Your task to perform on an android device: choose inbox layout in the gmail app Image 0: 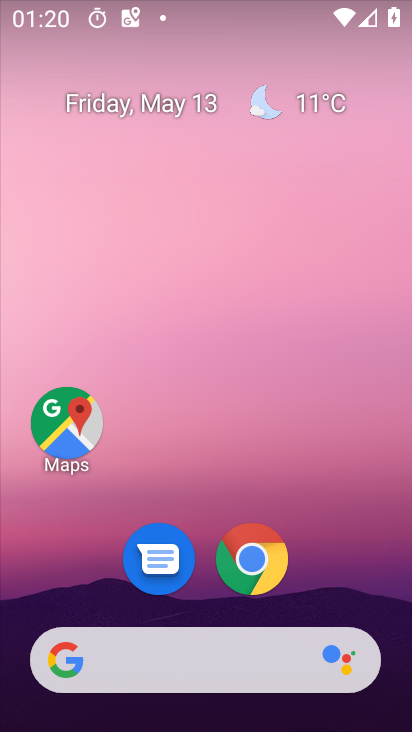
Step 0: drag from (337, 558) to (357, 152)
Your task to perform on an android device: choose inbox layout in the gmail app Image 1: 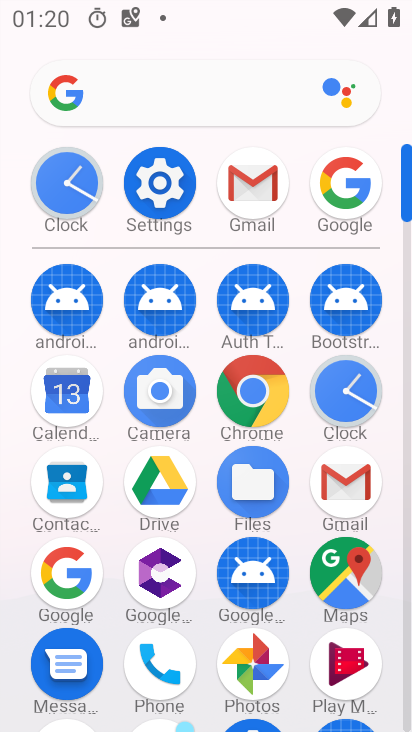
Step 1: click (244, 180)
Your task to perform on an android device: choose inbox layout in the gmail app Image 2: 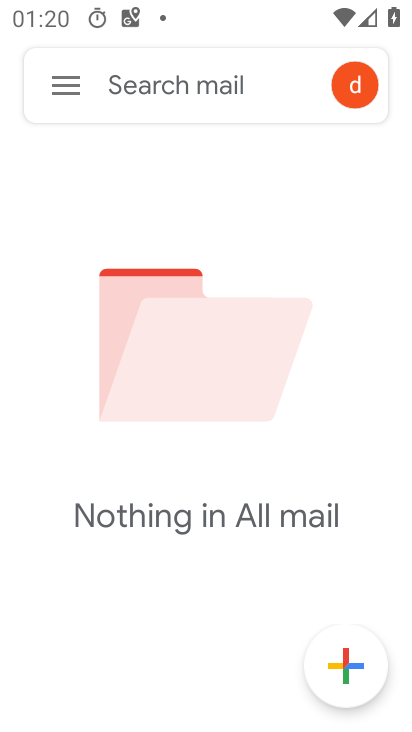
Step 2: click (62, 75)
Your task to perform on an android device: choose inbox layout in the gmail app Image 3: 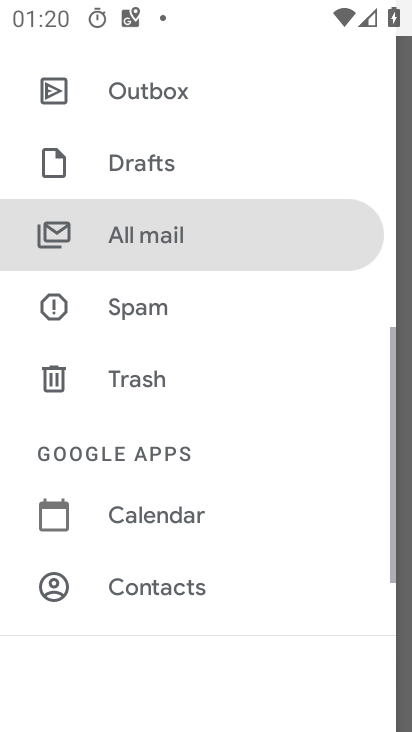
Step 3: drag from (180, 574) to (217, 153)
Your task to perform on an android device: choose inbox layout in the gmail app Image 4: 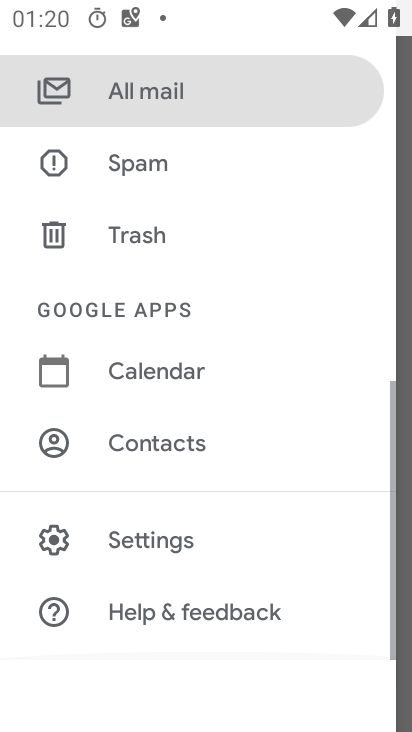
Step 4: click (144, 533)
Your task to perform on an android device: choose inbox layout in the gmail app Image 5: 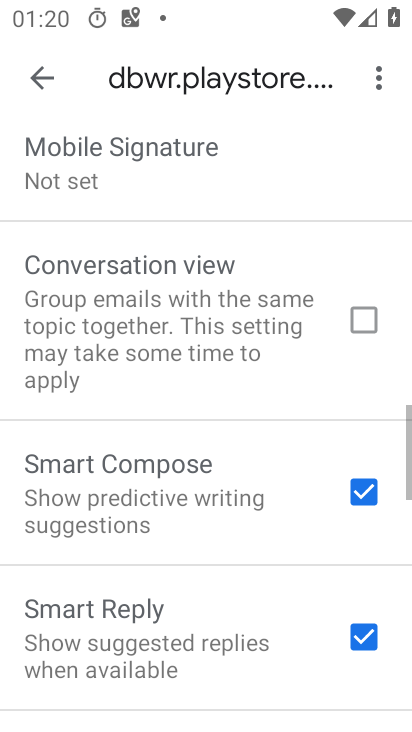
Step 5: drag from (194, 279) to (218, 639)
Your task to perform on an android device: choose inbox layout in the gmail app Image 6: 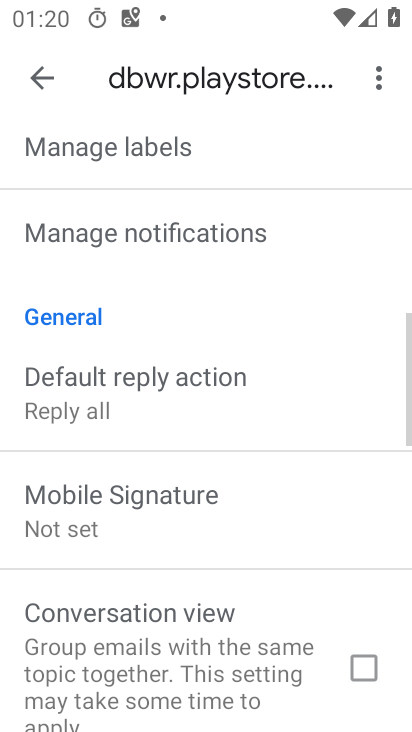
Step 6: drag from (159, 173) to (198, 580)
Your task to perform on an android device: choose inbox layout in the gmail app Image 7: 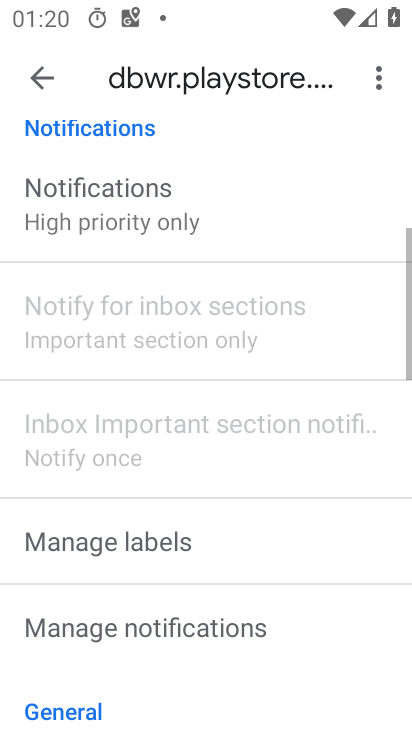
Step 7: drag from (154, 182) to (192, 546)
Your task to perform on an android device: choose inbox layout in the gmail app Image 8: 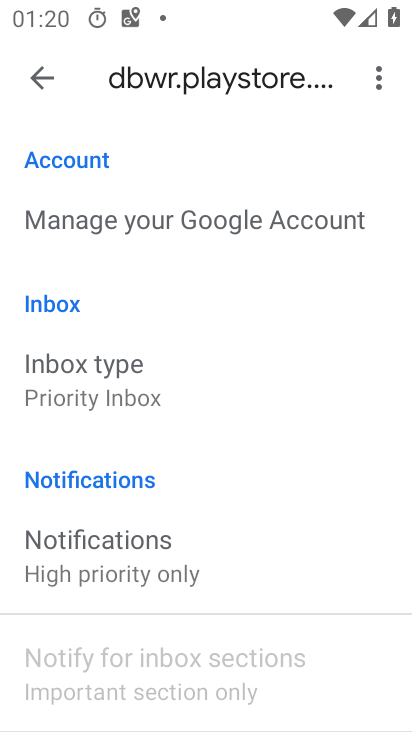
Step 8: click (121, 405)
Your task to perform on an android device: choose inbox layout in the gmail app Image 9: 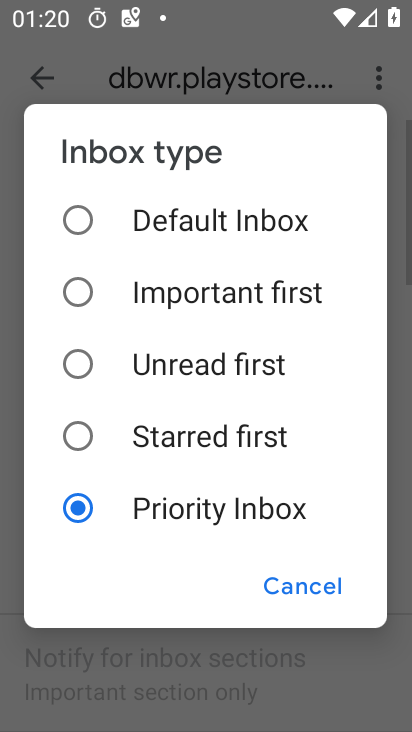
Step 9: click (77, 223)
Your task to perform on an android device: choose inbox layout in the gmail app Image 10: 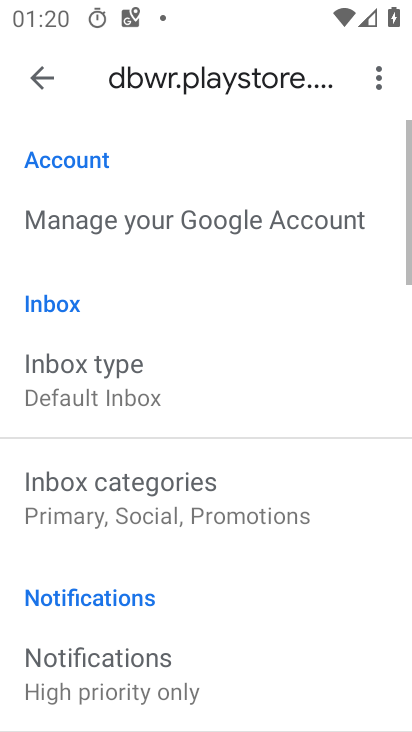
Step 10: task complete